Your task to perform on an android device: Show me productivity apps on the Play Store Image 0: 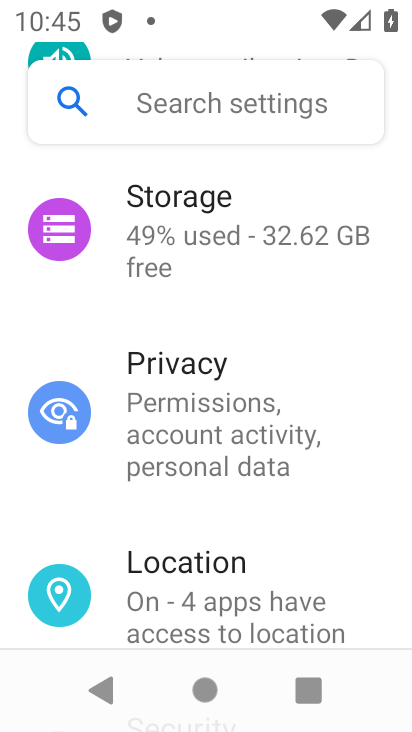
Step 0: press home button
Your task to perform on an android device: Show me productivity apps on the Play Store Image 1: 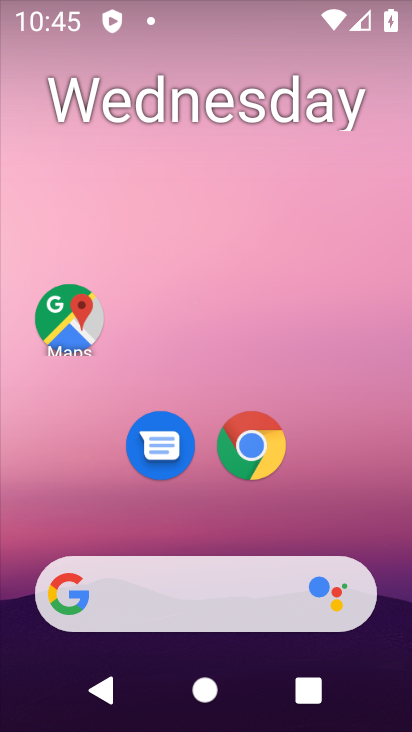
Step 1: drag from (331, 512) to (358, 150)
Your task to perform on an android device: Show me productivity apps on the Play Store Image 2: 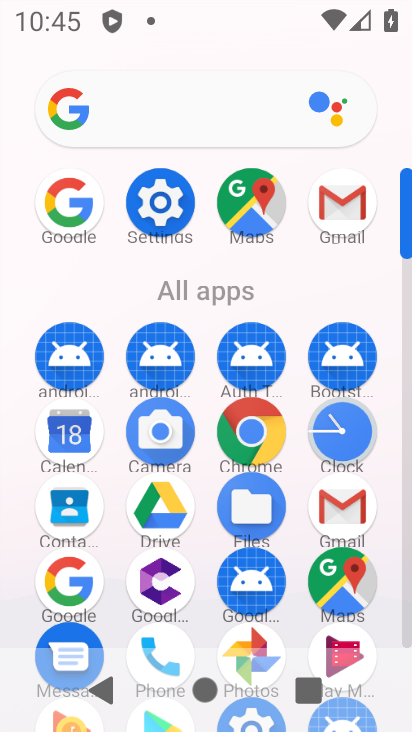
Step 2: drag from (281, 648) to (330, 249)
Your task to perform on an android device: Show me productivity apps on the Play Store Image 3: 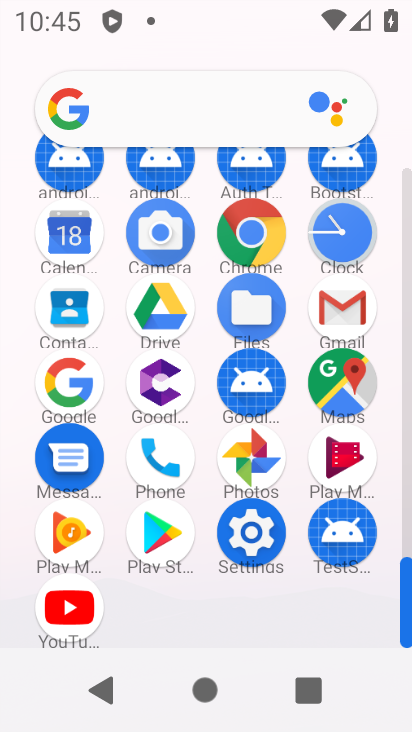
Step 3: click (149, 548)
Your task to perform on an android device: Show me productivity apps on the Play Store Image 4: 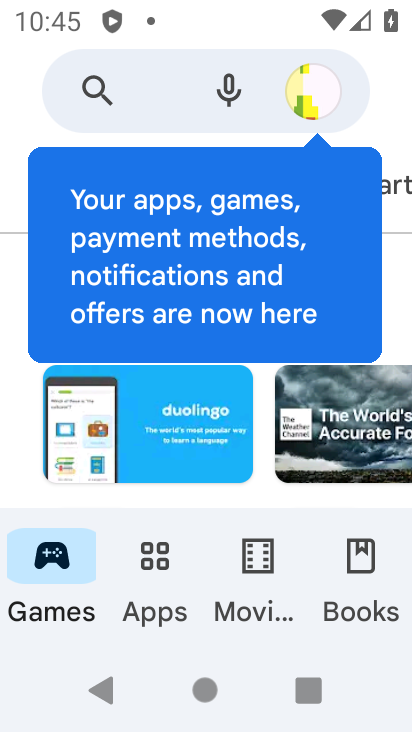
Step 4: click (157, 545)
Your task to perform on an android device: Show me productivity apps on the Play Store Image 5: 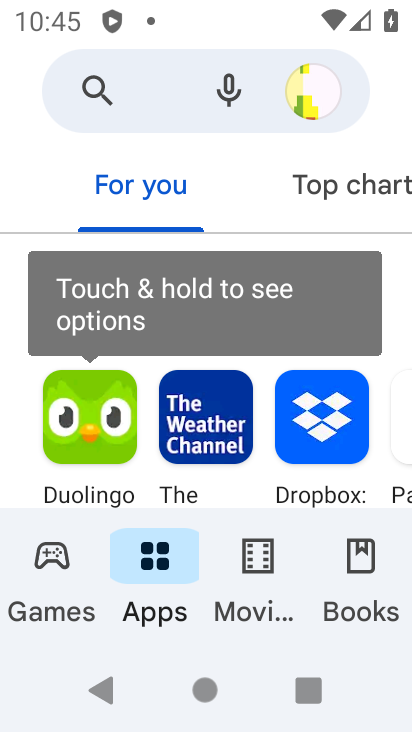
Step 5: drag from (392, 205) to (22, 239)
Your task to perform on an android device: Show me productivity apps on the Play Store Image 6: 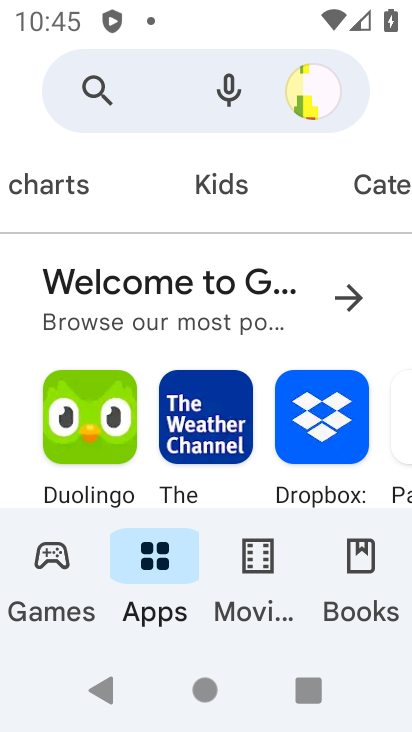
Step 6: click (367, 186)
Your task to perform on an android device: Show me productivity apps on the Play Store Image 7: 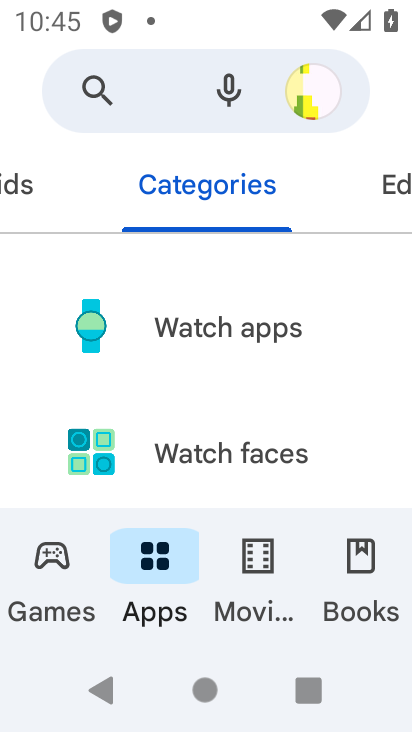
Step 7: drag from (223, 433) to (234, 287)
Your task to perform on an android device: Show me productivity apps on the Play Store Image 8: 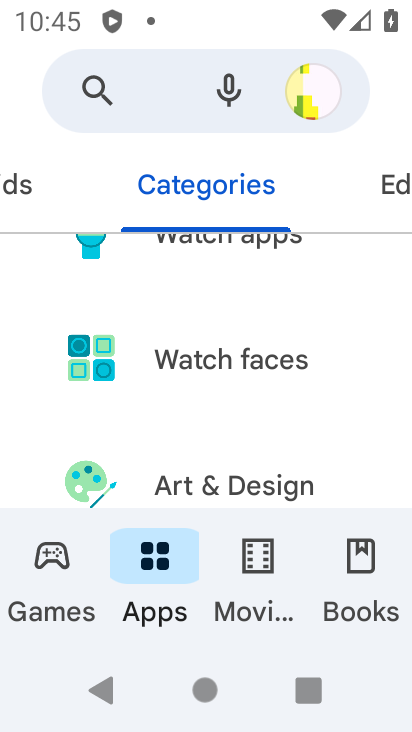
Step 8: drag from (238, 460) to (272, 227)
Your task to perform on an android device: Show me productivity apps on the Play Store Image 9: 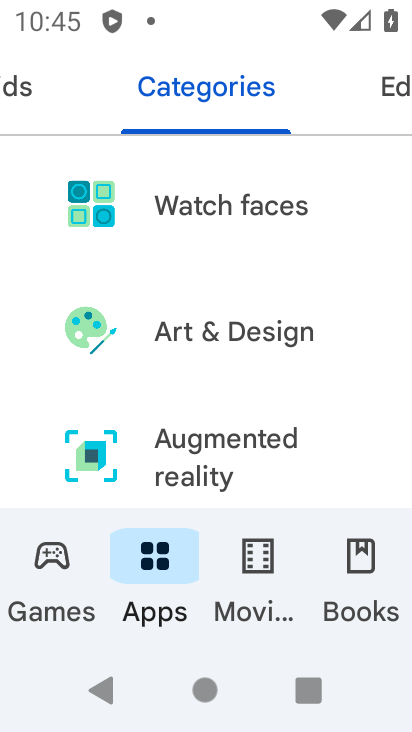
Step 9: drag from (248, 490) to (376, 48)
Your task to perform on an android device: Show me productivity apps on the Play Store Image 10: 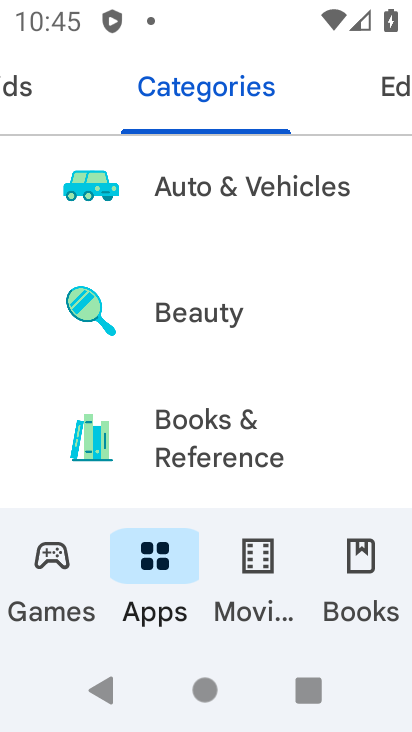
Step 10: drag from (274, 495) to (350, 94)
Your task to perform on an android device: Show me productivity apps on the Play Store Image 11: 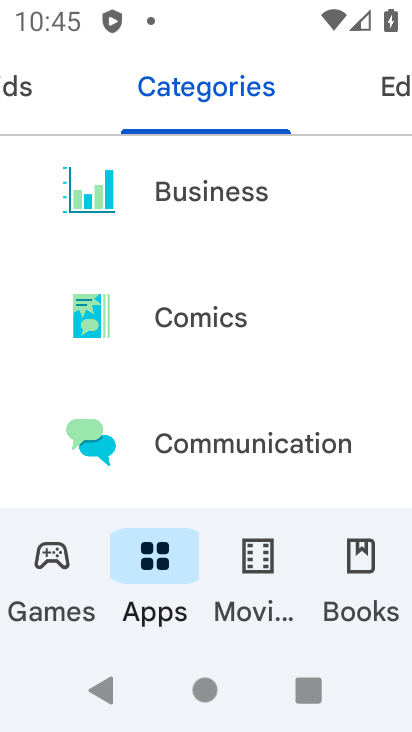
Step 11: drag from (272, 396) to (293, 230)
Your task to perform on an android device: Show me productivity apps on the Play Store Image 12: 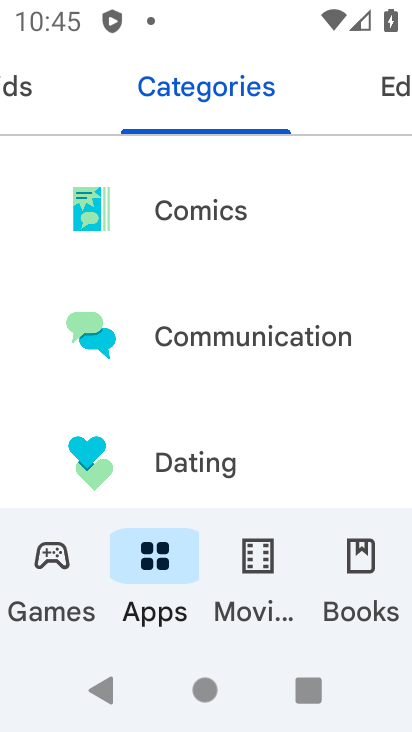
Step 12: drag from (270, 451) to (312, 225)
Your task to perform on an android device: Show me productivity apps on the Play Store Image 13: 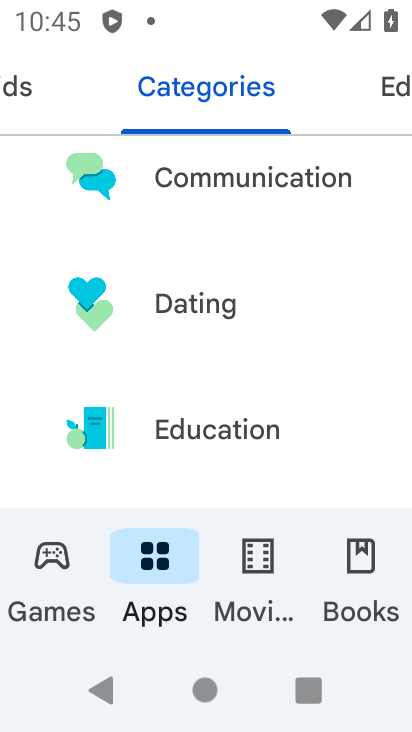
Step 13: drag from (285, 425) to (310, 222)
Your task to perform on an android device: Show me productivity apps on the Play Store Image 14: 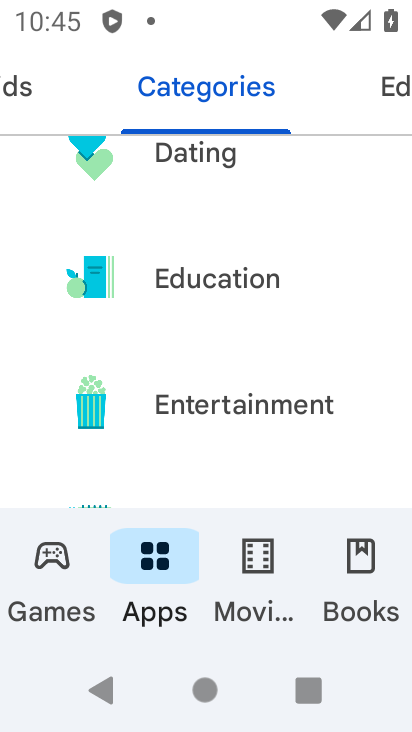
Step 14: drag from (296, 432) to (298, 195)
Your task to perform on an android device: Show me productivity apps on the Play Store Image 15: 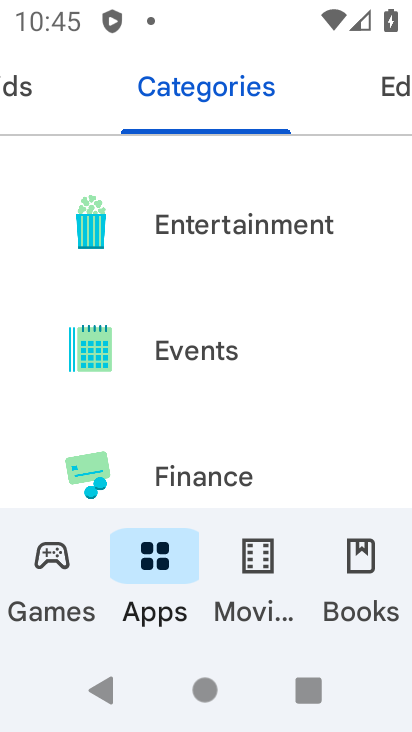
Step 15: drag from (259, 492) to (307, 225)
Your task to perform on an android device: Show me productivity apps on the Play Store Image 16: 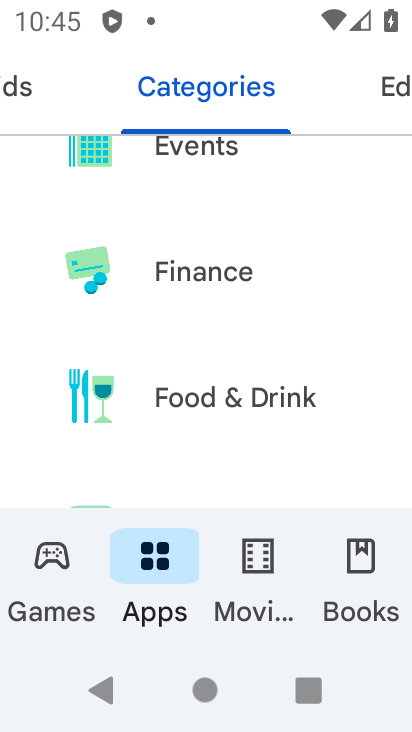
Step 16: drag from (282, 475) to (319, 213)
Your task to perform on an android device: Show me productivity apps on the Play Store Image 17: 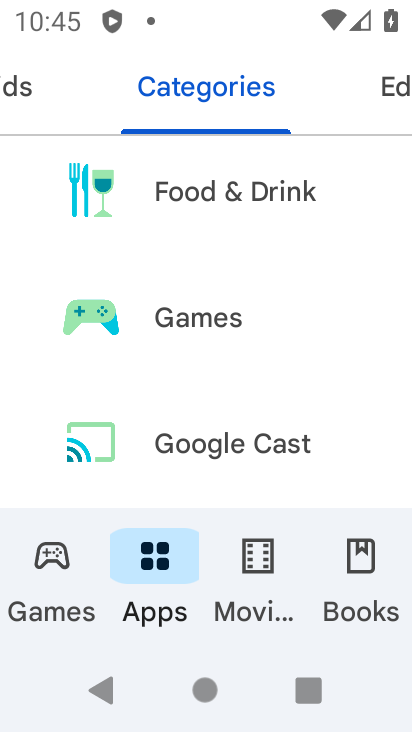
Step 17: drag from (293, 405) to (304, 293)
Your task to perform on an android device: Show me productivity apps on the Play Store Image 18: 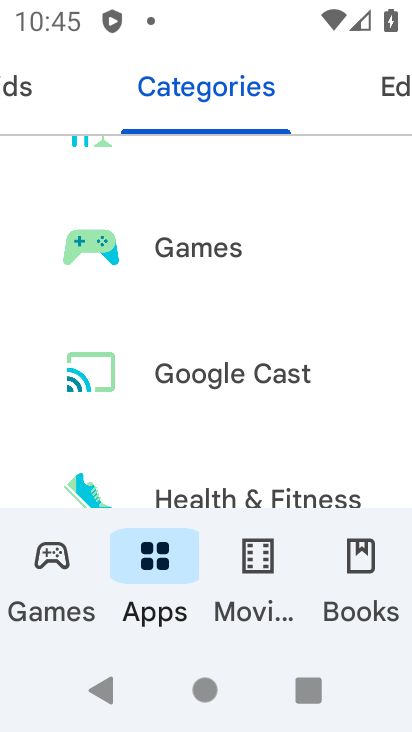
Step 18: drag from (295, 365) to (295, 265)
Your task to perform on an android device: Show me productivity apps on the Play Store Image 19: 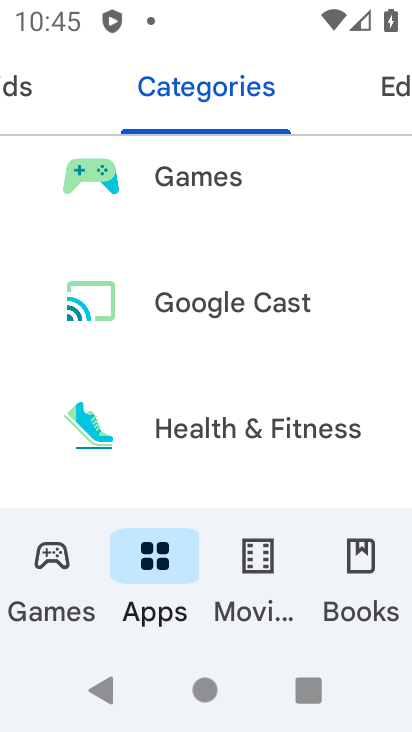
Step 19: drag from (255, 499) to (317, 252)
Your task to perform on an android device: Show me productivity apps on the Play Store Image 20: 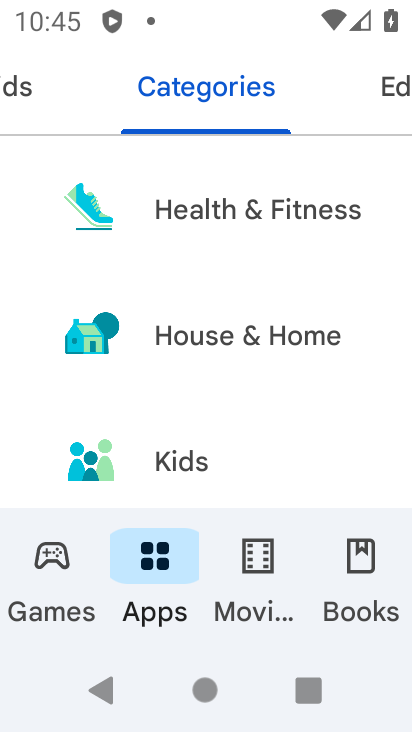
Step 20: drag from (305, 463) to (341, 159)
Your task to perform on an android device: Show me productivity apps on the Play Store Image 21: 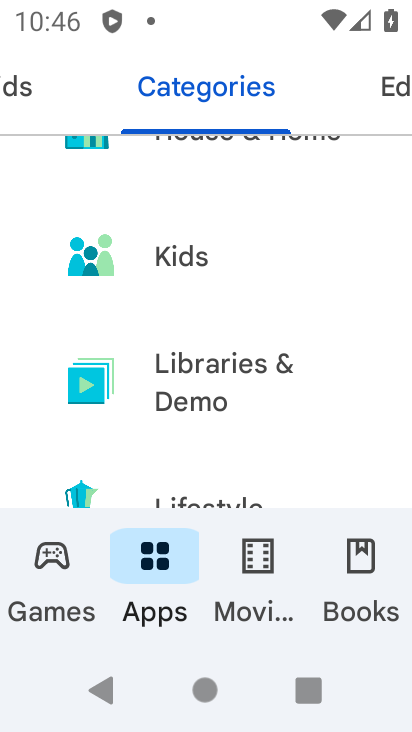
Step 21: drag from (254, 472) to (295, 167)
Your task to perform on an android device: Show me productivity apps on the Play Store Image 22: 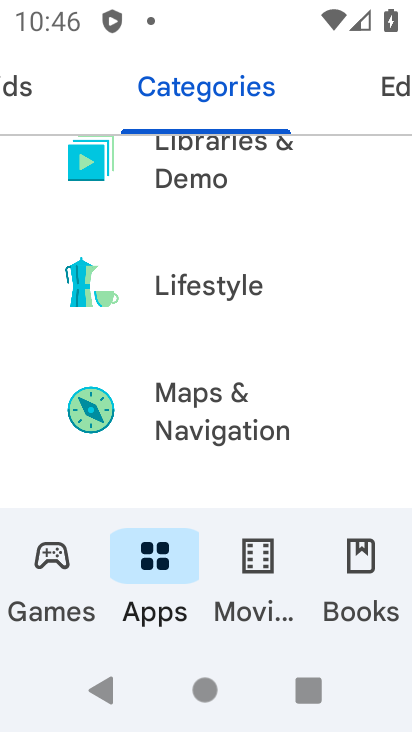
Step 22: drag from (270, 396) to (335, 91)
Your task to perform on an android device: Show me productivity apps on the Play Store Image 23: 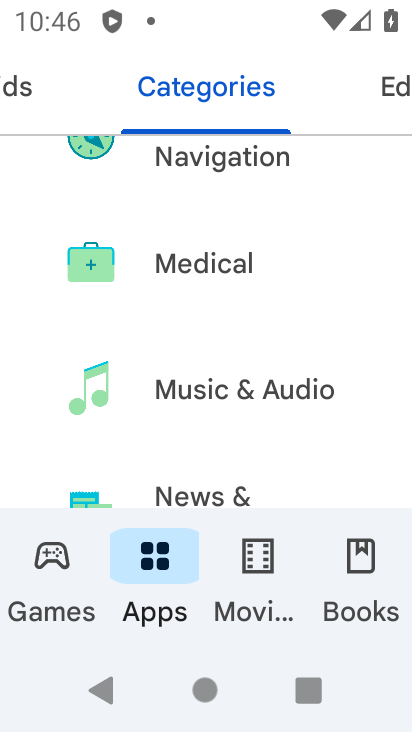
Step 23: drag from (306, 462) to (379, 161)
Your task to perform on an android device: Show me productivity apps on the Play Store Image 24: 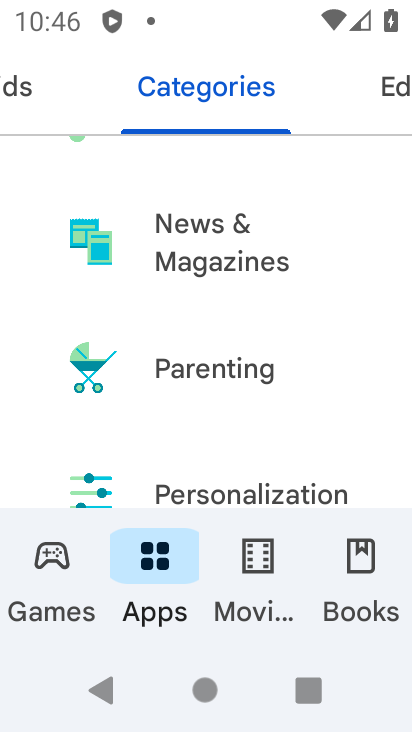
Step 24: drag from (306, 485) to (356, 173)
Your task to perform on an android device: Show me productivity apps on the Play Store Image 25: 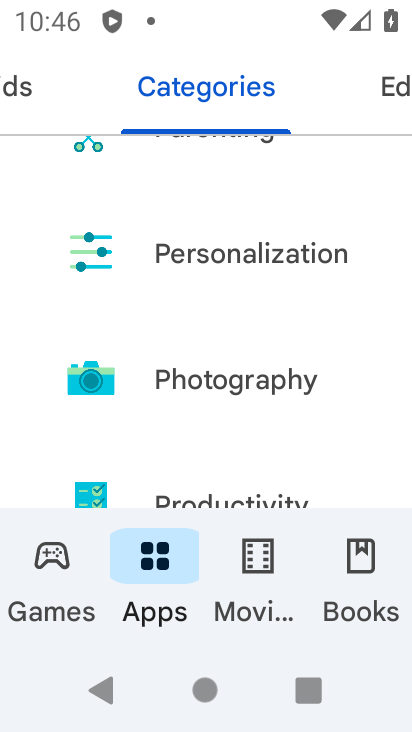
Step 25: click (258, 494)
Your task to perform on an android device: Show me productivity apps on the Play Store Image 26: 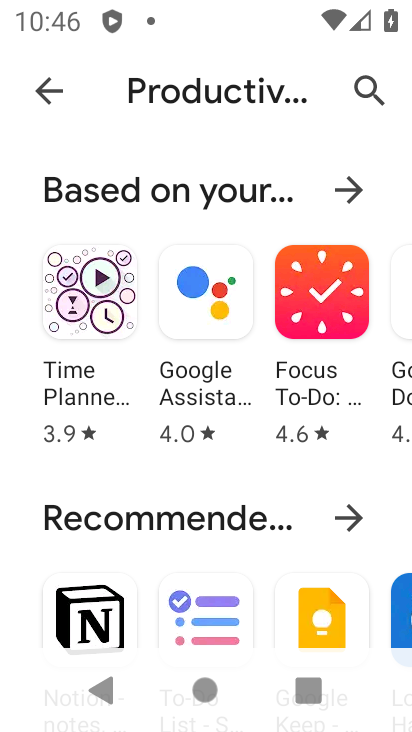
Step 26: task complete